Your task to perform on an android device: uninstall "Gmail" Image 0: 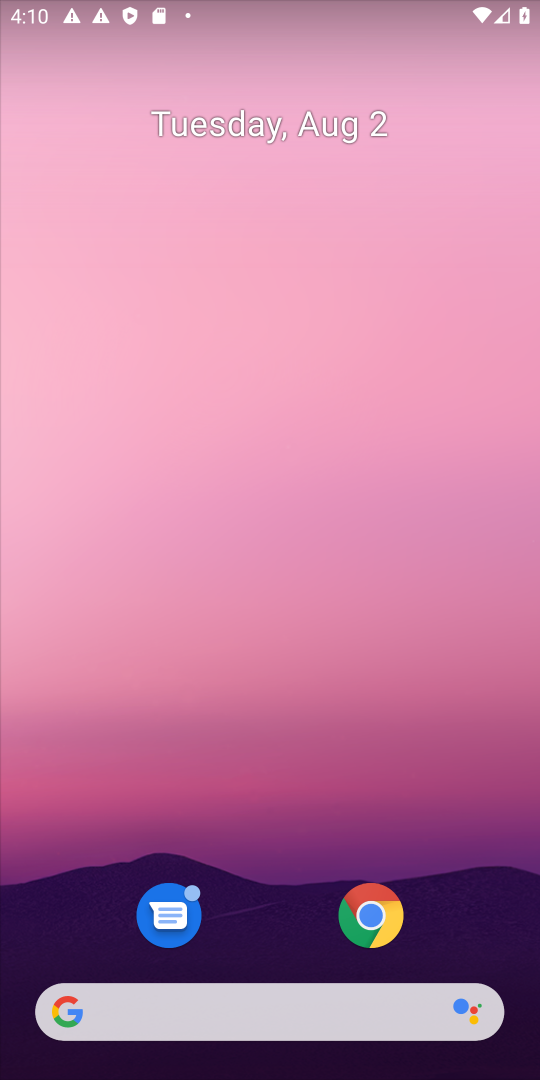
Step 0: drag from (294, 898) to (259, 15)
Your task to perform on an android device: uninstall "Gmail" Image 1: 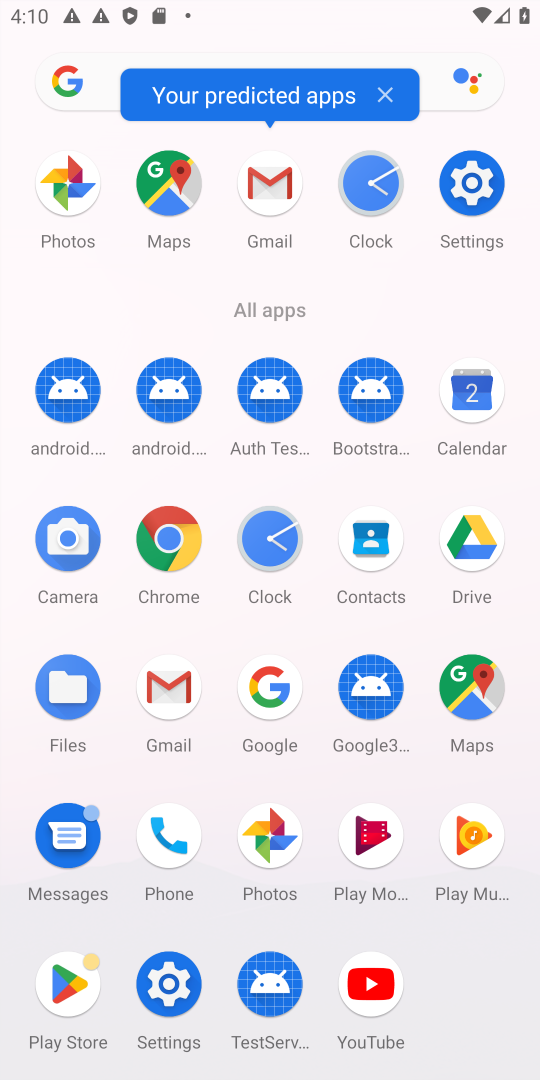
Step 1: click (65, 1006)
Your task to perform on an android device: uninstall "Gmail" Image 2: 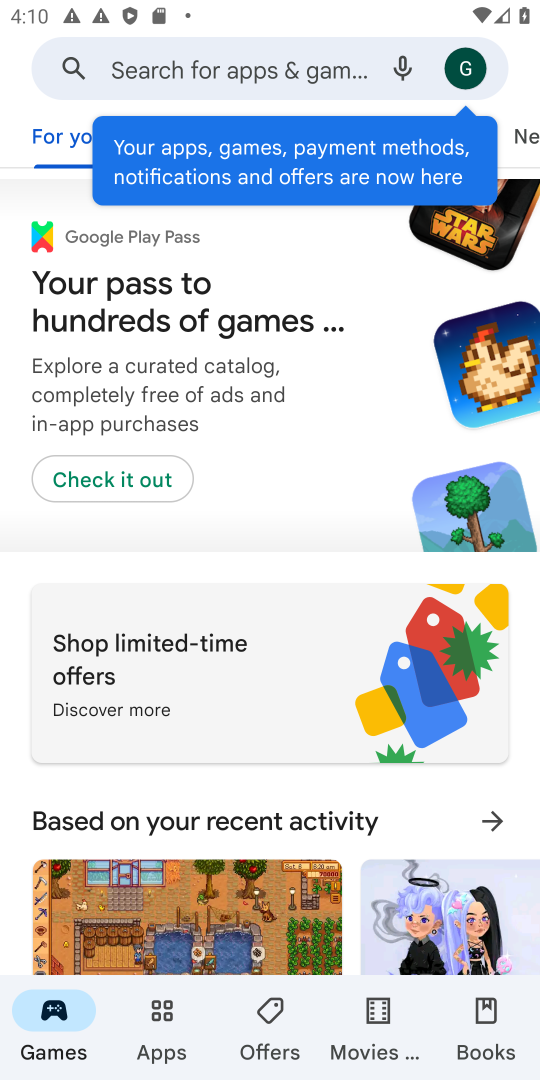
Step 2: click (246, 44)
Your task to perform on an android device: uninstall "Gmail" Image 3: 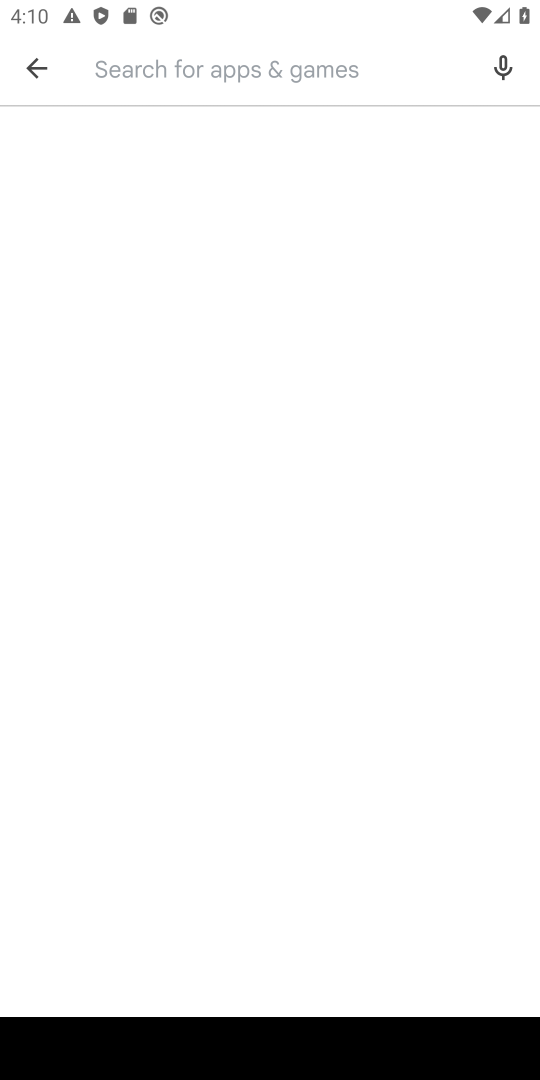
Step 3: type "gmail"
Your task to perform on an android device: uninstall "Gmail" Image 4: 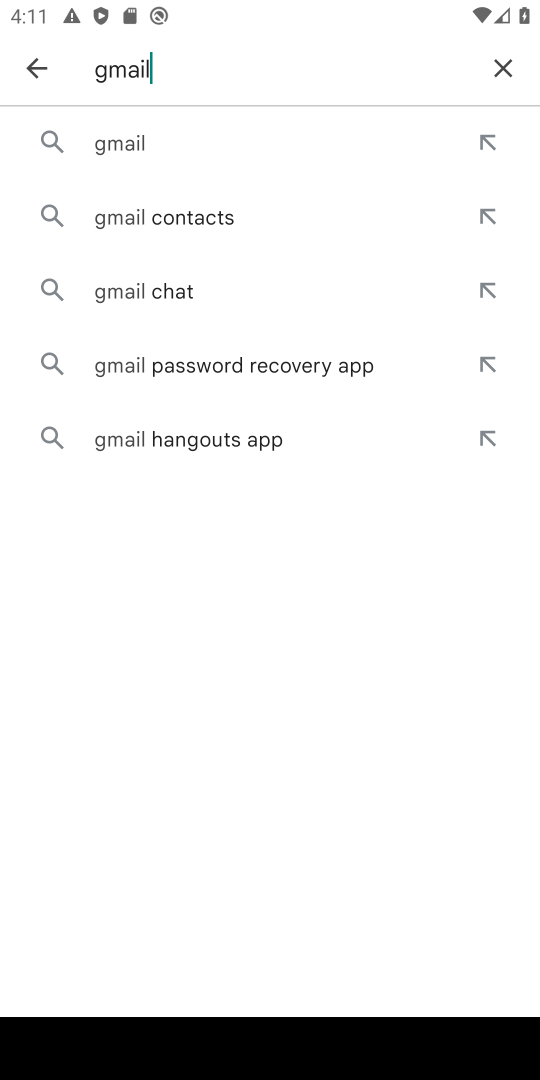
Step 4: click (205, 124)
Your task to perform on an android device: uninstall "Gmail" Image 5: 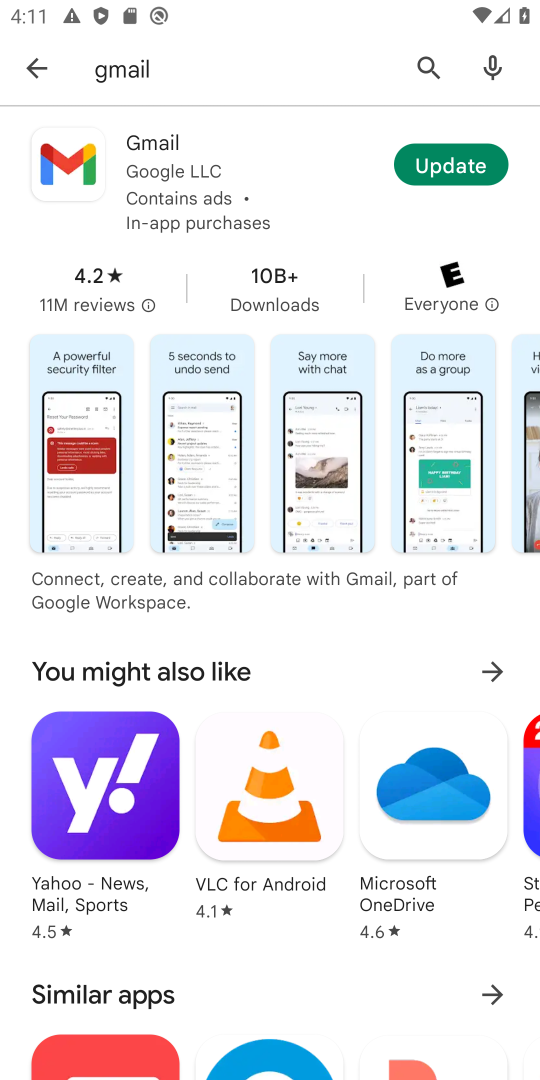
Step 5: click (229, 155)
Your task to perform on an android device: uninstall "Gmail" Image 6: 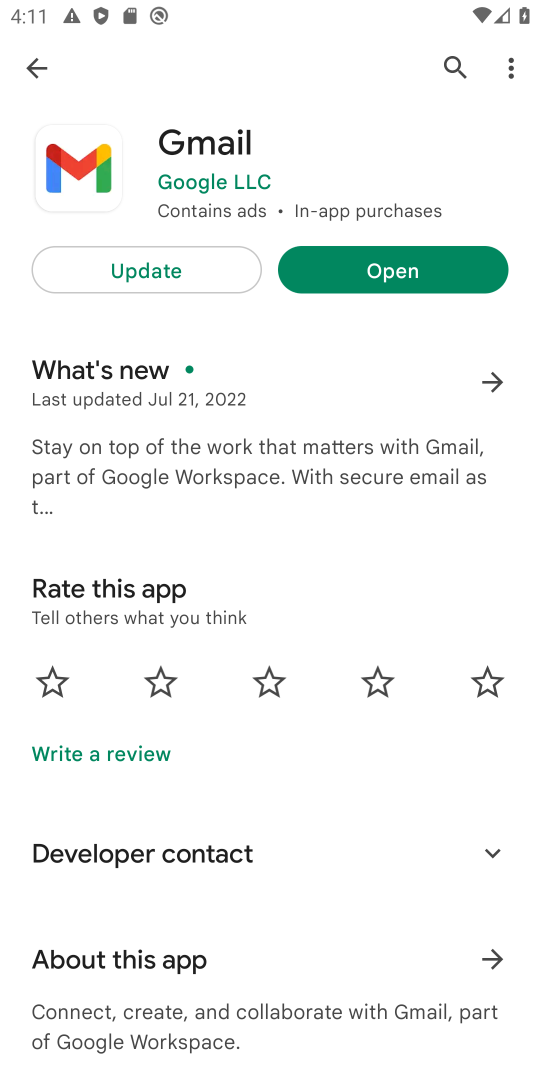
Step 6: task complete